Your task to perform on an android device: Search for alienware area 51 on target, select the first entry, add it to the cart, then select checkout. Image 0: 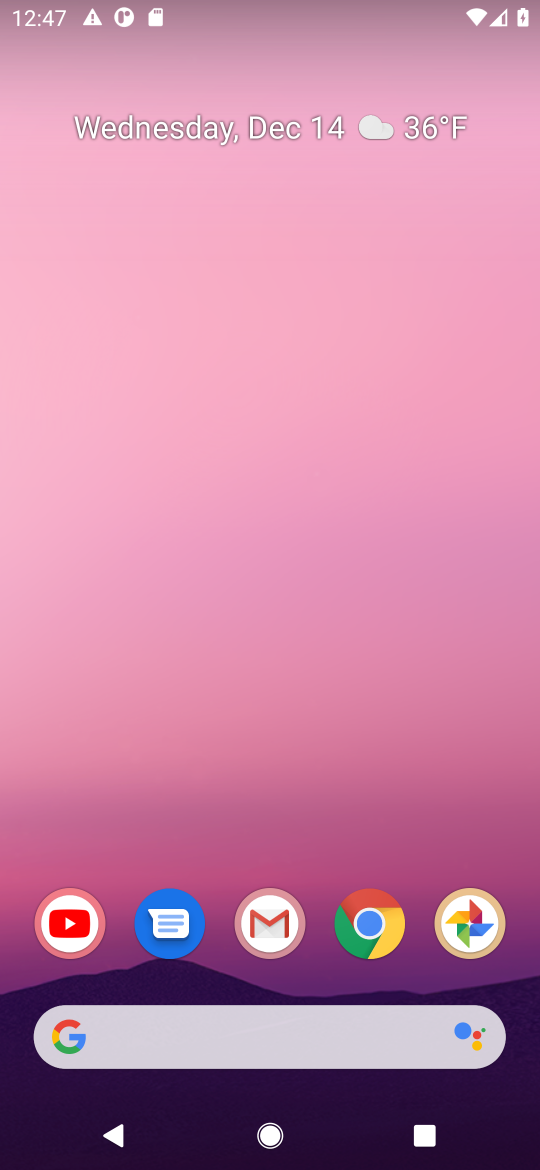
Step 0: click (353, 950)
Your task to perform on an android device: Search for alienware area 51 on target, select the first entry, add it to the cart, then select checkout. Image 1: 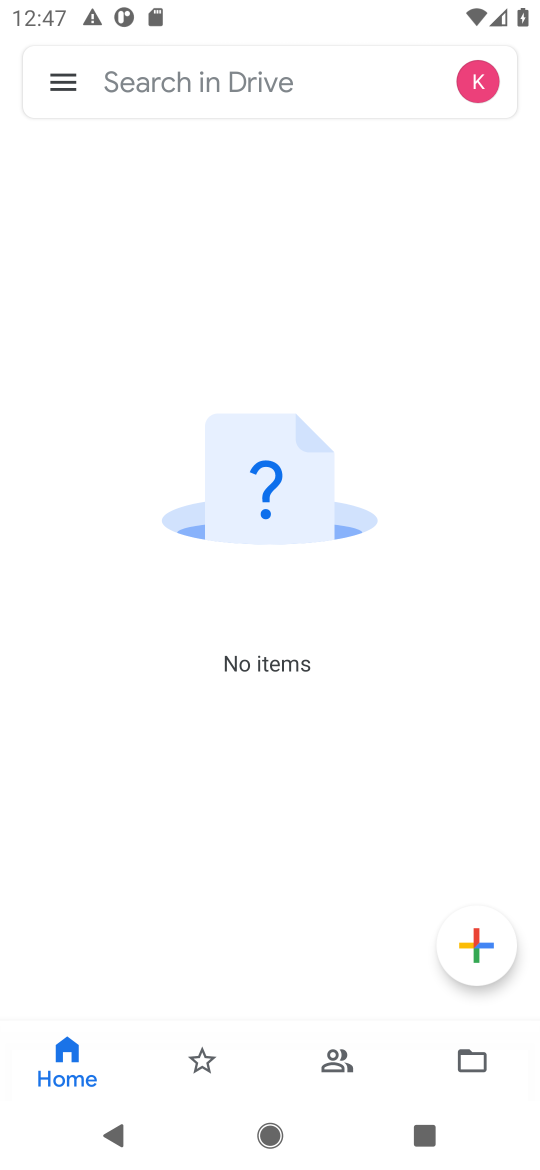
Step 1: press home button
Your task to perform on an android device: Search for alienware area 51 on target, select the first entry, add it to the cart, then select checkout. Image 2: 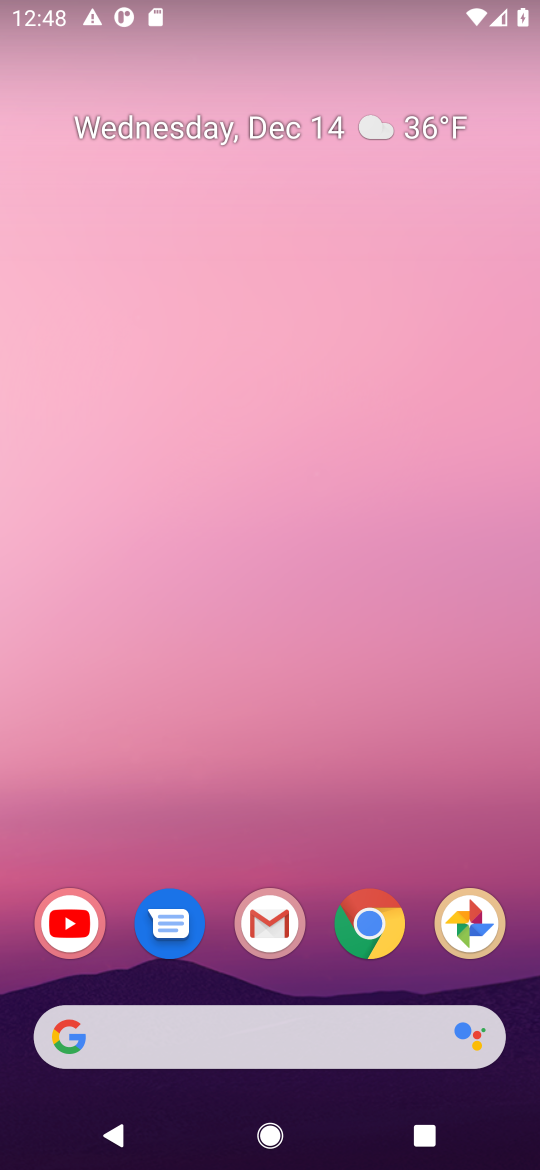
Step 2: click (369, 921)
Your task to perform on an android device: Search for alienware area 51 on target, select the first entry, add it to the cart, then select checkout. Image 3: 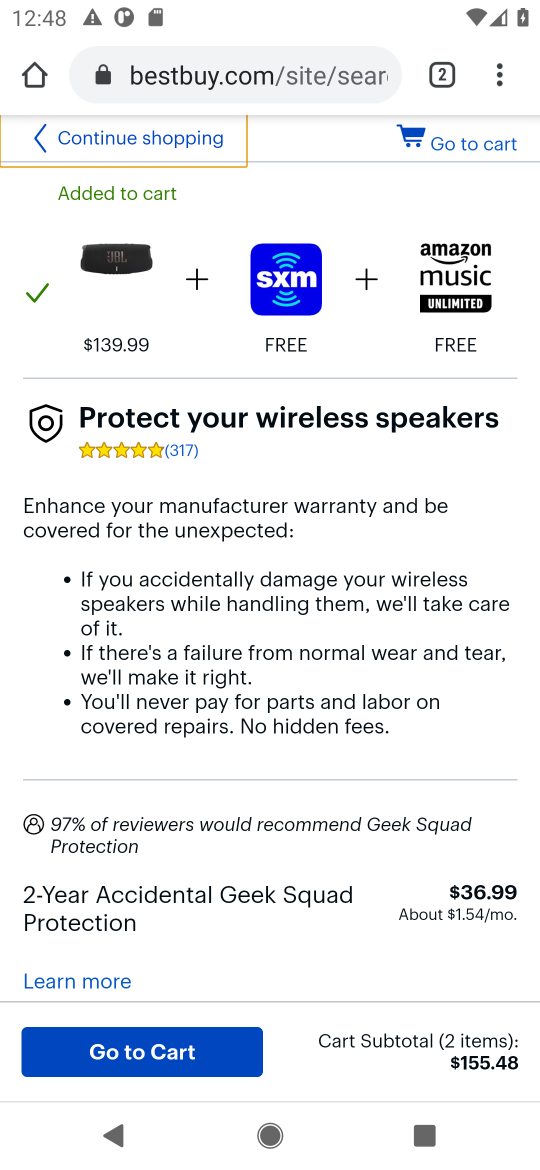
Step 3: click (206, 80)
Your task to perform on an android device: Search for alienware area 51 on target, select the first entry, add it to the cart, then select checkout. Image 4: 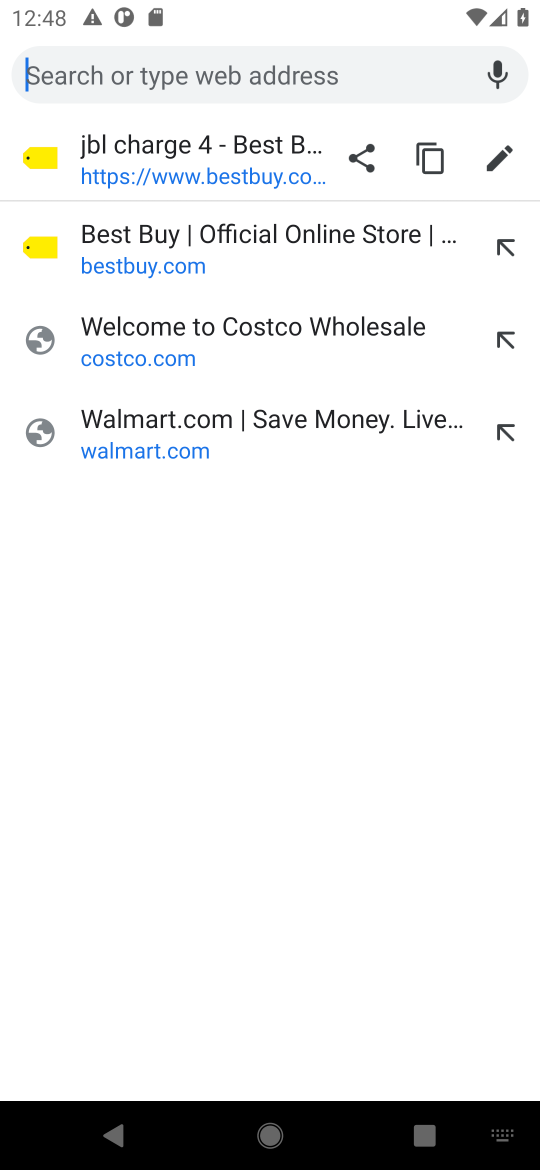
Step 4: type "target"
Your task to perform on an android device: Search for alienware area 51 on target, select the first entry, add it to the cart, then select checkout. Image 5: 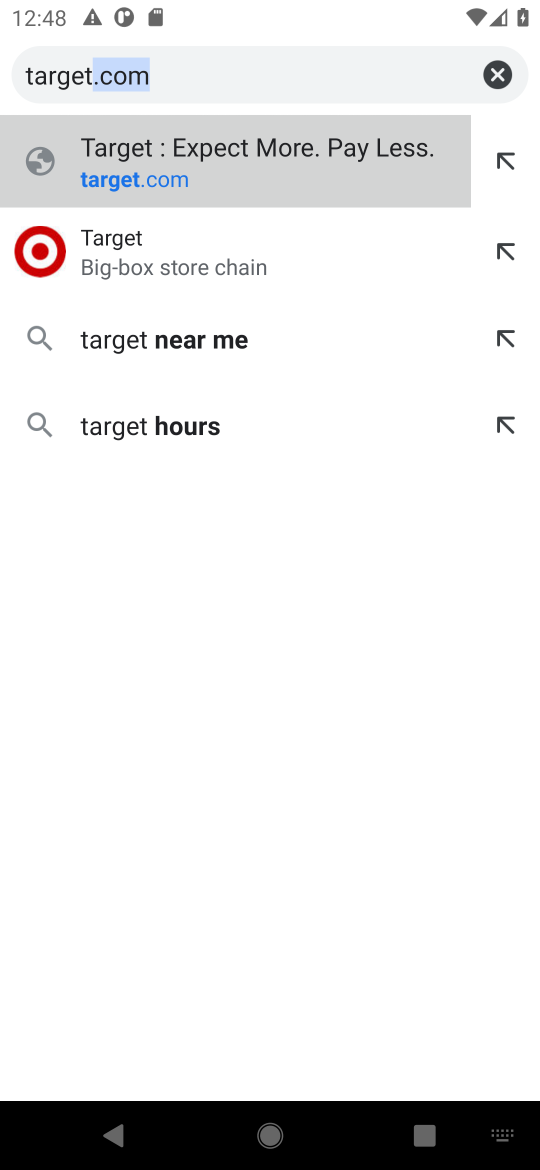
Step 5: click (118, 242)
Your task to perform on an android device: Search for alienware area 51 on target, select the first entry, add it to the cart, then select checkout. Image 6: 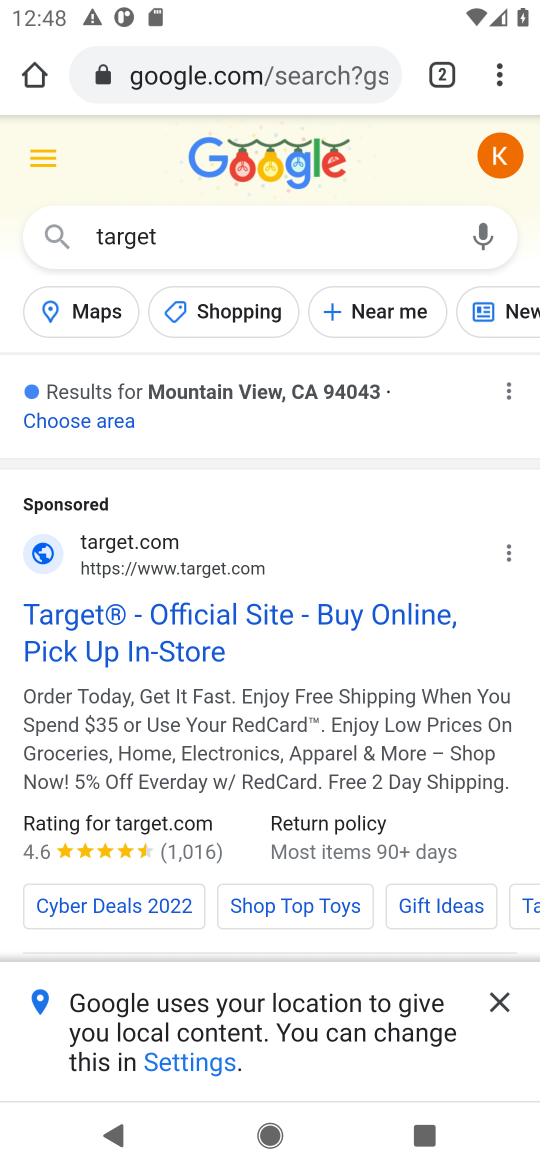
Step 6: click (129, 598)
Your task to perform on an android device: Search for alienware area 51 on target, select the first entry, add it to the cart, then select checkout. Image 7: 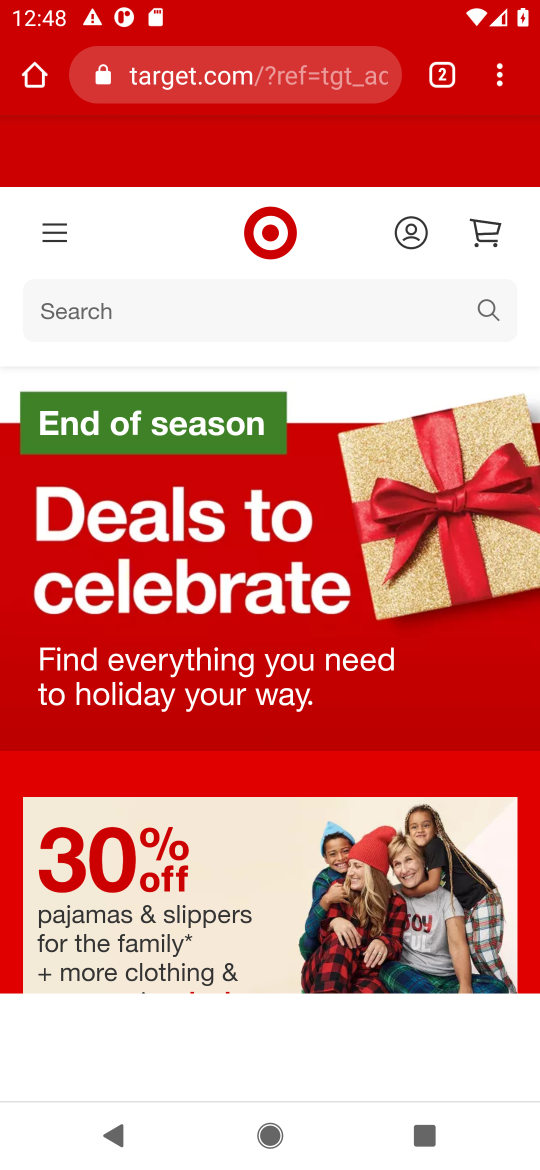
Step 7: click (245, 294)
Your task to perform on an android device: Search for alienware area 51 on target, select the first entry, add it to the cart, then select checkout. Image 8: 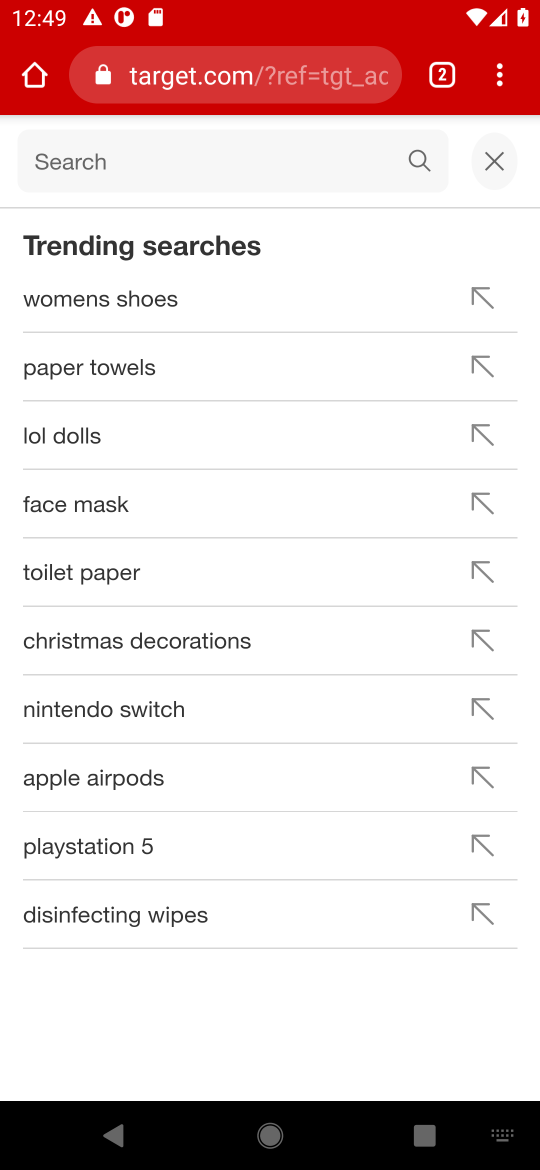
Step 8: type "alienware area 51"
Your task to perform on an android device: Search for alienware area 51 on target, select the first entry, add it to the cart, then select checkout. Image 9: 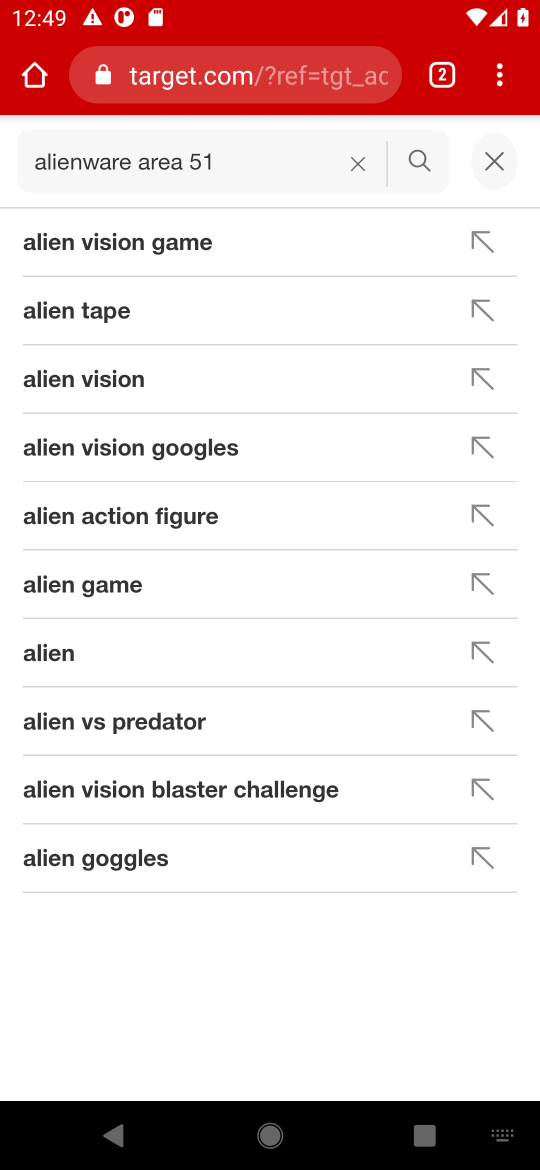
Step 9: click (422, 157)
Your task to perform on an android device: Search for alienware area 51 on target, select the first entry, add it to the cart, then select checkout. Image 10: 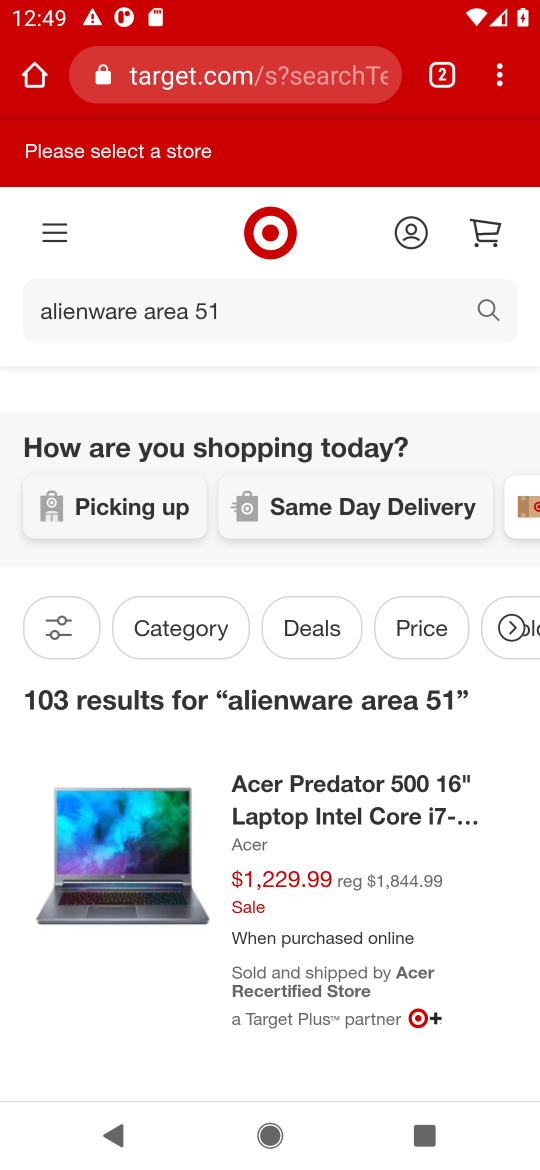
Step 10: click (308, 791)
Your task to perform on an android device: Search for alienware area 51 on target, select the first entry, add it to the cart, then select checkout. Image 11: 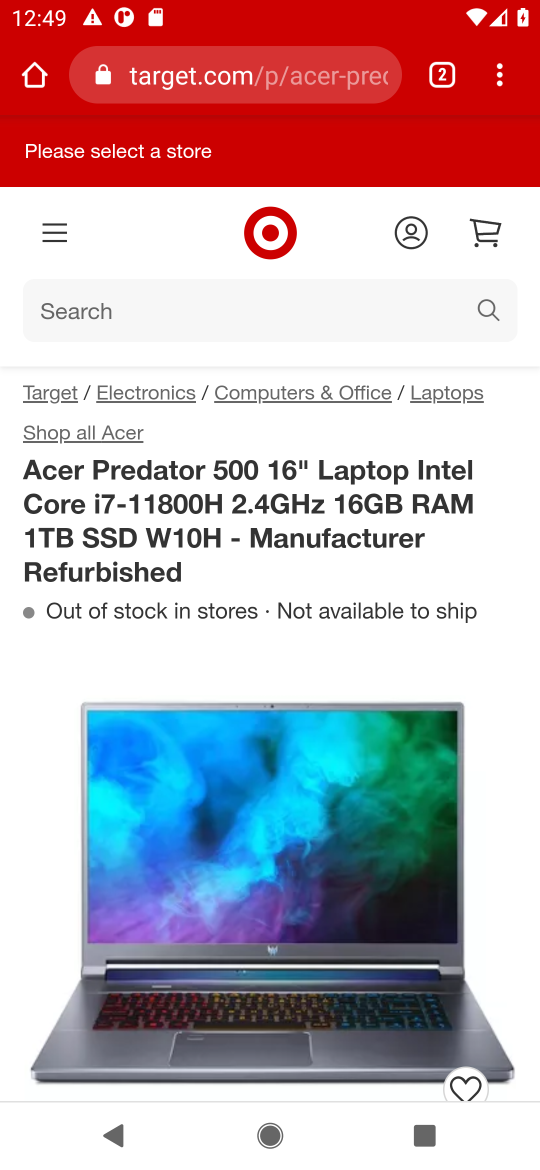
Step 11: drag from (296, 944) to (281, 503)
Your task to perform on an android device: Search for alienware area 51 on target, select the first entry, add it to the cart, then select checkout. Image 12: 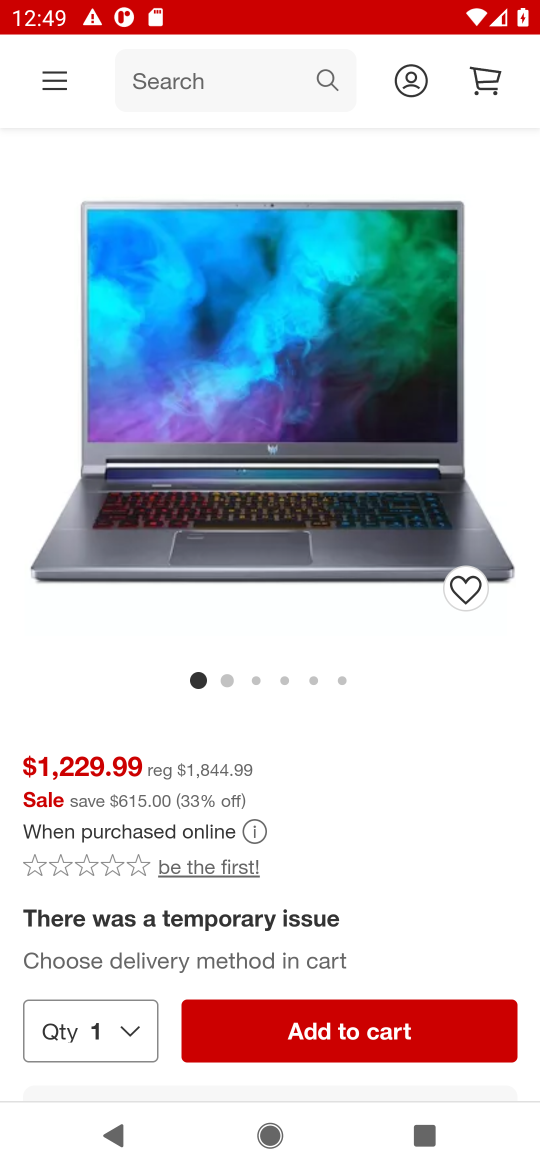
Step 12: click (405, 1015)
Your task to perform on an android device: Search for alienware area 51 on target, select the first entry, add it to the cart, then select checkout. Image 13: 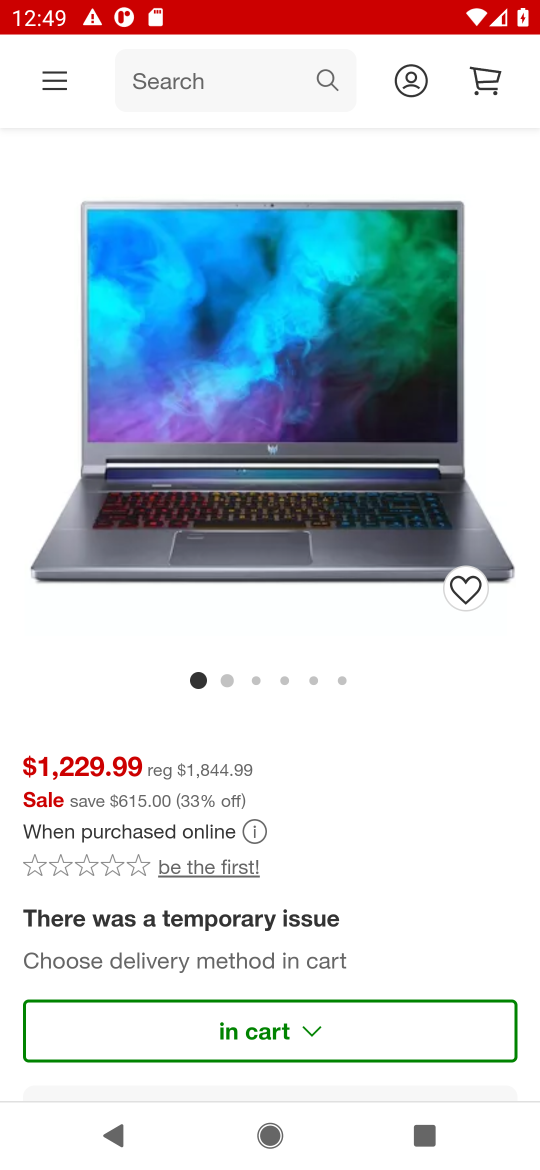
Step 13: task complete